Your task to perform on an android device: turn off improve location accuracy Image 0: 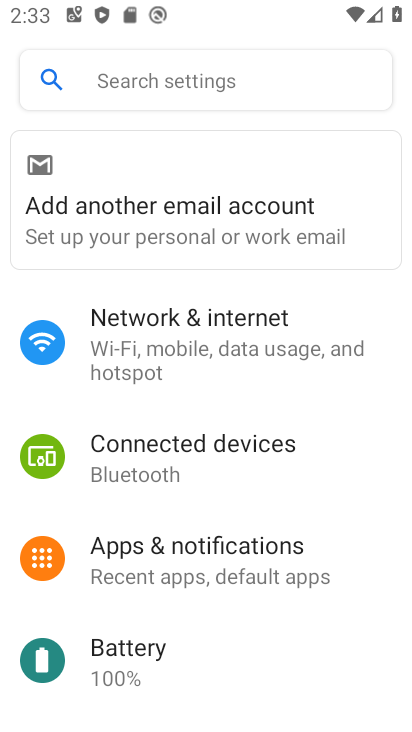
Step 0: drag from (236, 594) to (298, 82)
Your task to perform on an android device: turn off improve location accuracy Image 1: 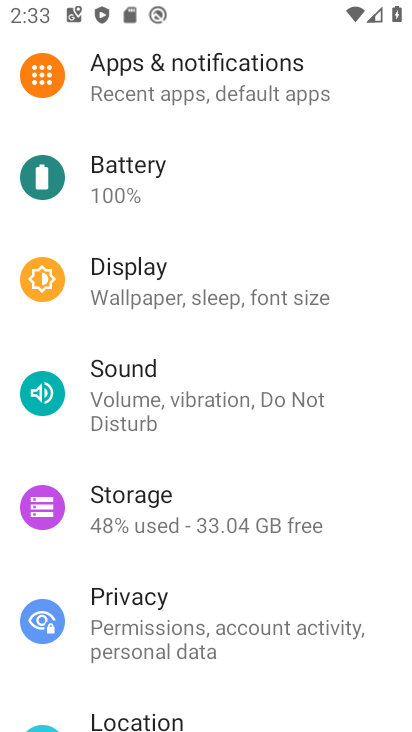
Step 1: drag from (232, 593) to (305, 129)
Your task to perform on an android device: turn off improve location accuracy Image 2: 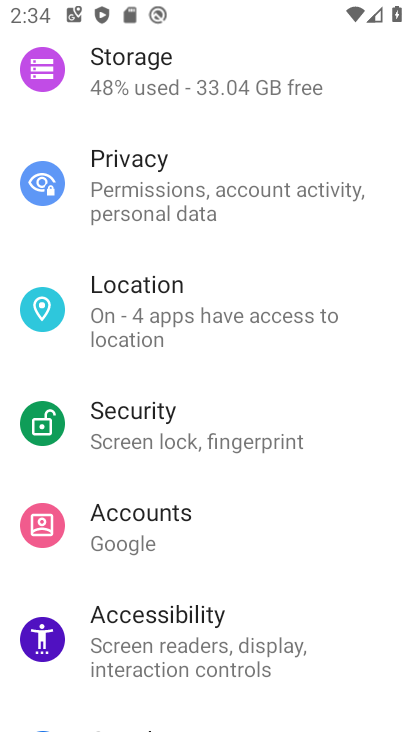
Step 2: click (167, 309)
Your task to perform on an android device: turn off improve location accuracy Image 3: 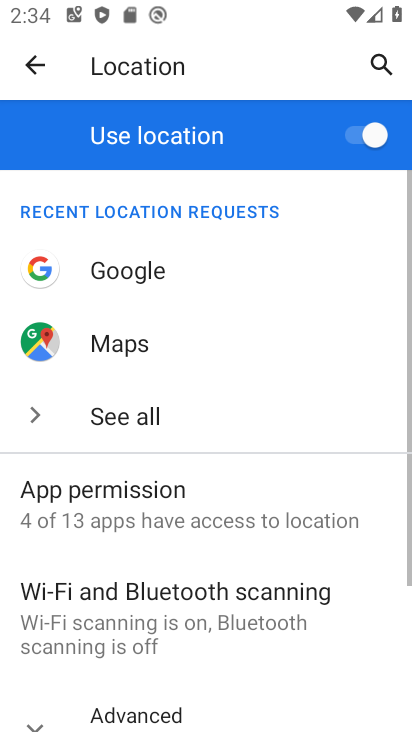
Step 3: drag from (182, 642) to (195, 241)
Your task to perform on an android device: turn off improve location accuracy Image 4: 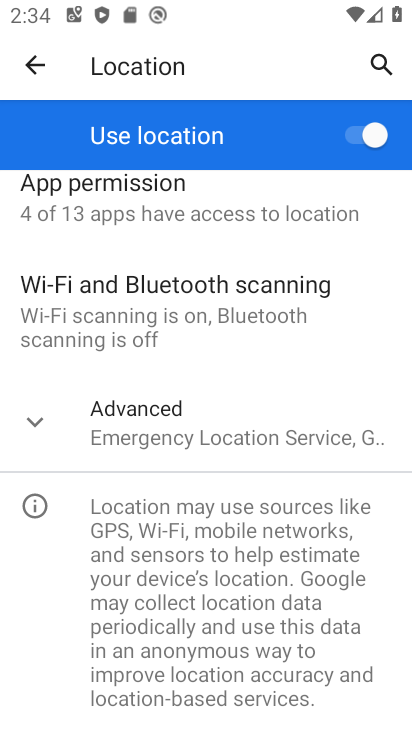
Step 4: click (151, 422)
Your task to perform on an android device: turn off improve location accuracy Image 5: 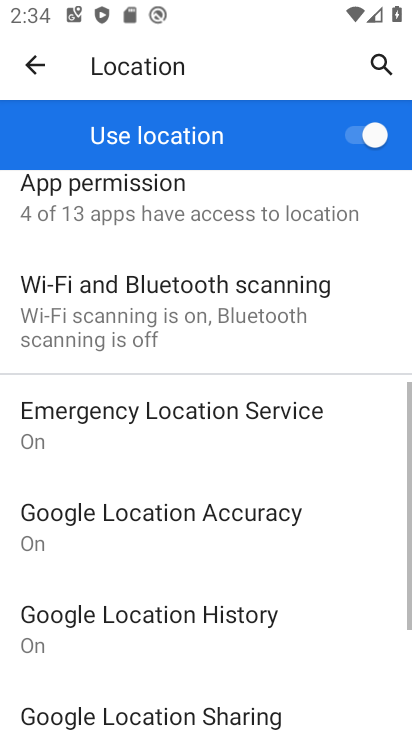
Step 5: drag from (256, 521) to (279, 142)
Your task to perform on an android device: turn off improve location accuracy Image 6: 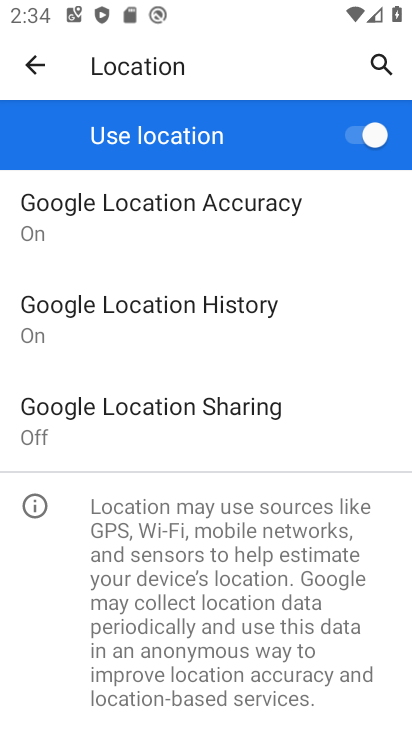
Step 6: click (209, 221)
Your task to perform on an android device: turn off improve location accuracy Image 7: 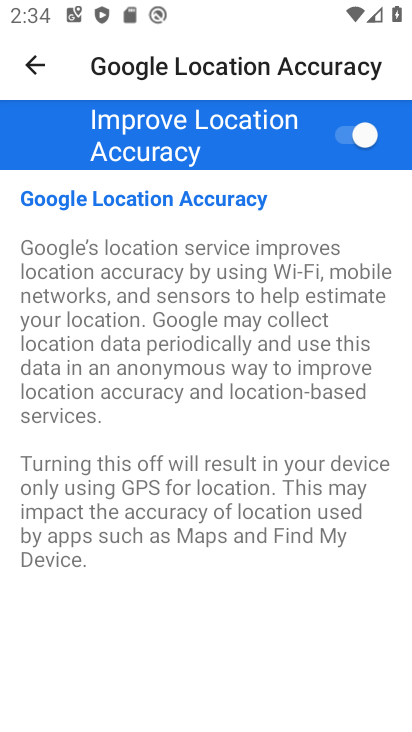
Step 7: click (380, 122)
Your task to perform on an android device: turn off improve location accuracy Image 8: 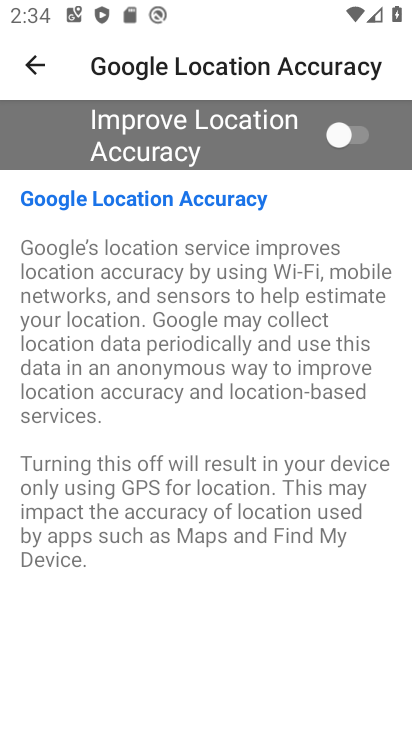
Step 8: task complete